Your task to perform on an android device: Open Android settings Image 0: 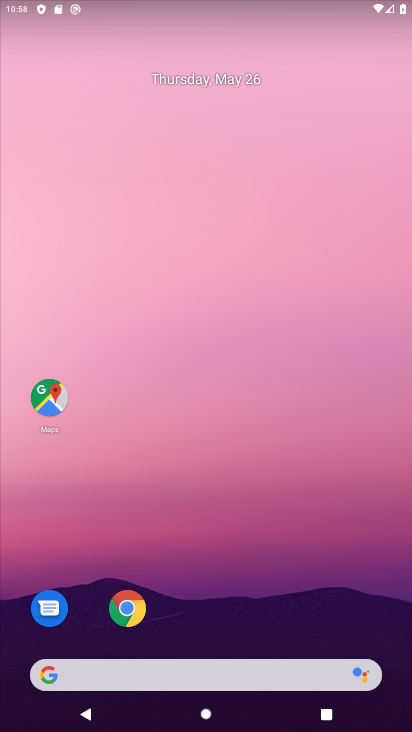
Step 0: drag from (252, 488) to (142, 44)
Your task to perform on an android device: Open Android settings Image 1: 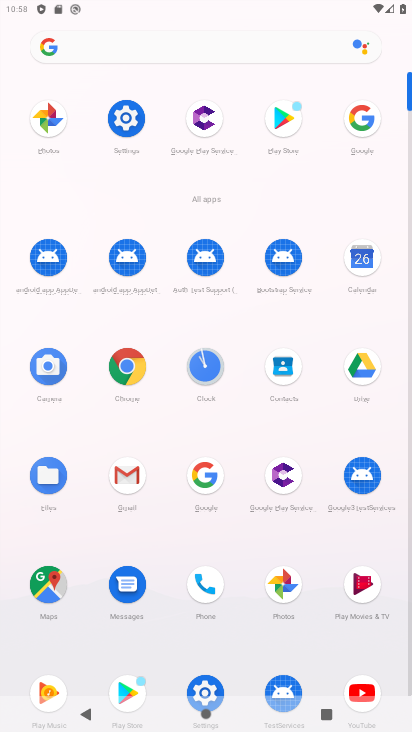
Step 1: click (127, 116)
Your task to perform on an android device: Open Android settings Image 2: 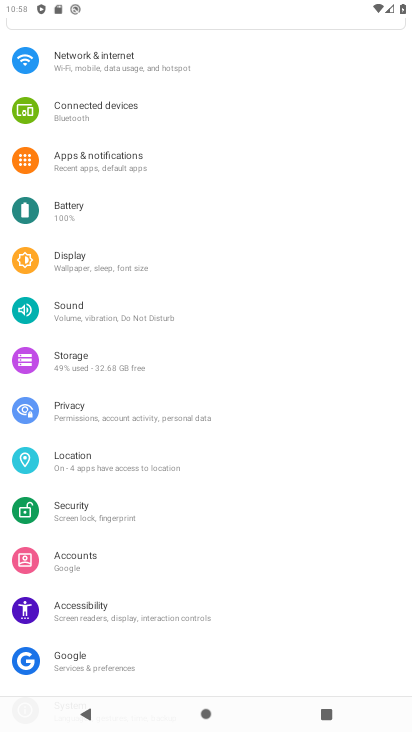
Step 2: task complete